Your task to perform on an android device: Open the downloads Image 0: 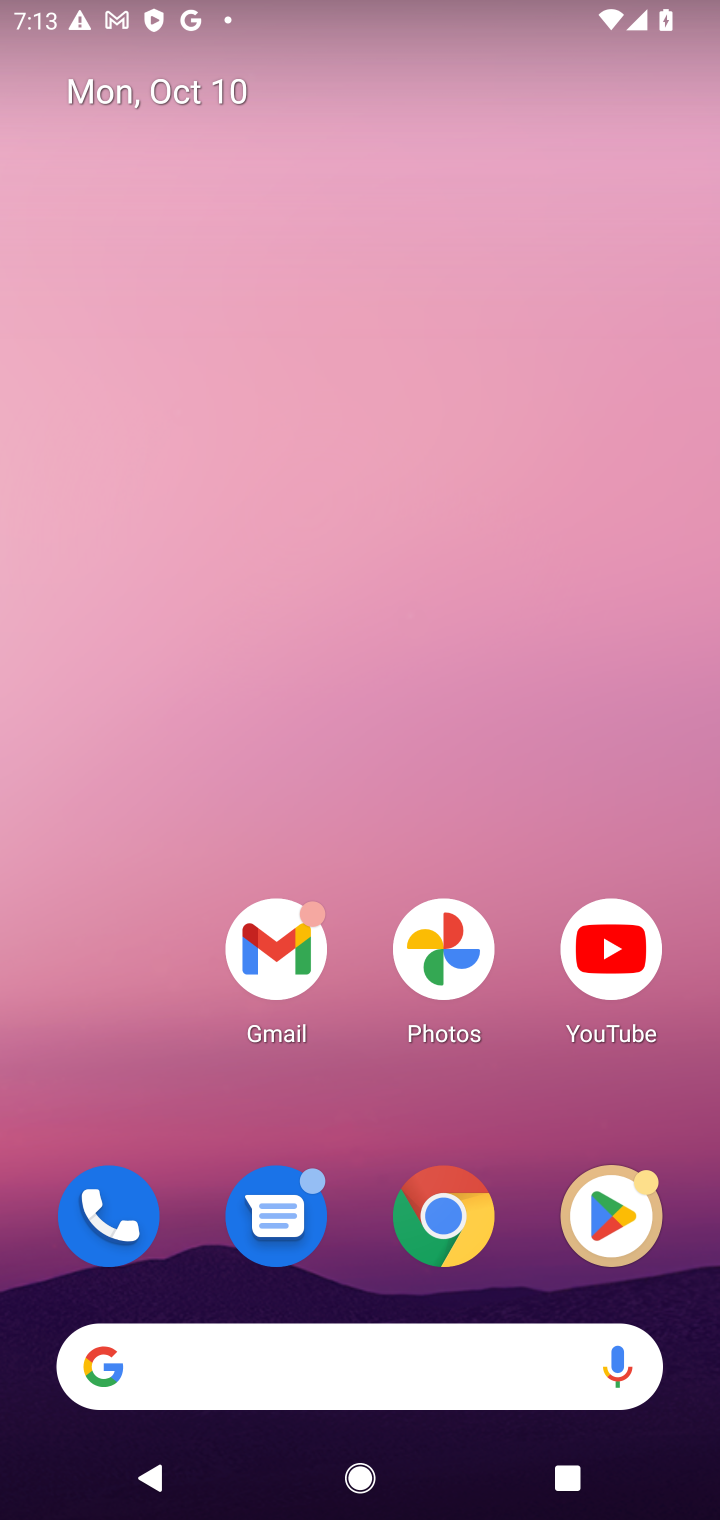
Step 0: drag from (356, 937) to (413, 374)
Your task to perform on an android device: Open the downloads Image 1: 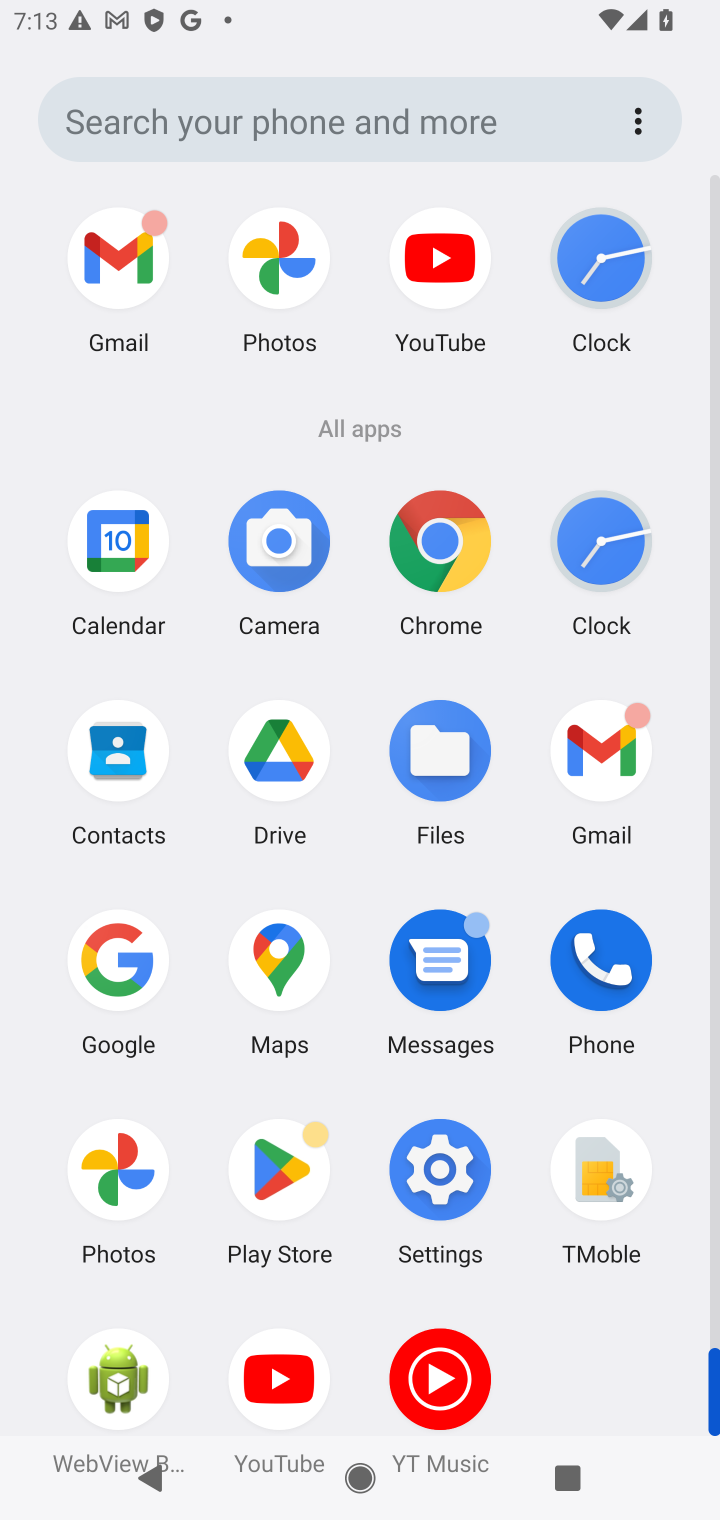
Step 1: task complete